Your task to perform on an android device: Search for Mexican restaurants on Maps Image 0: 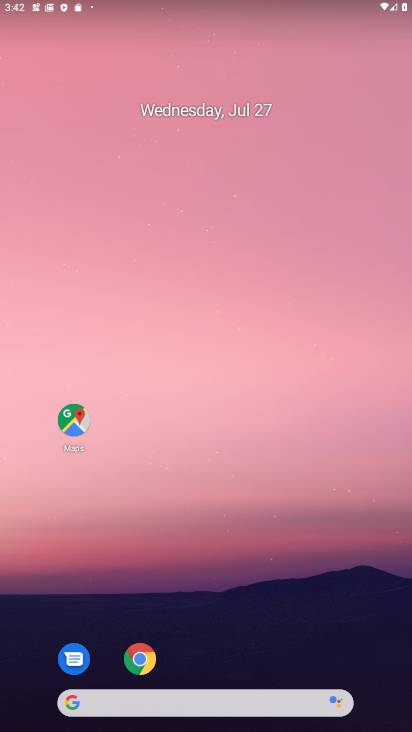
Step 0: drag from (211, 672) to (216, 226)
Your task to perform on an android device: Search for Mexican restaurants on Maps Image 1: 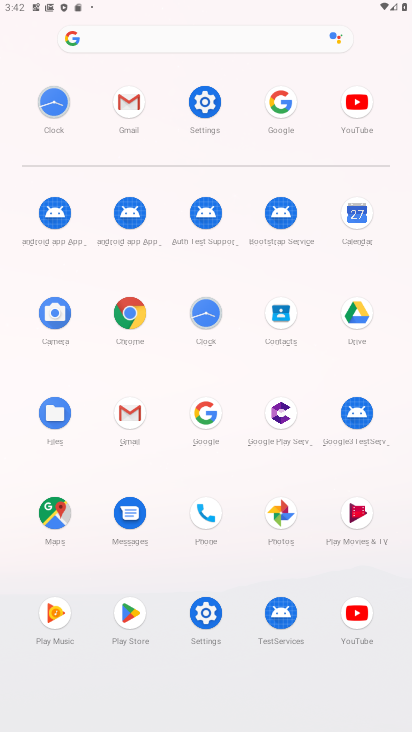
Step 1: click (57, 518)
Your task to perform on an android device: Search for Mexican restaurants on Maps Image 2: 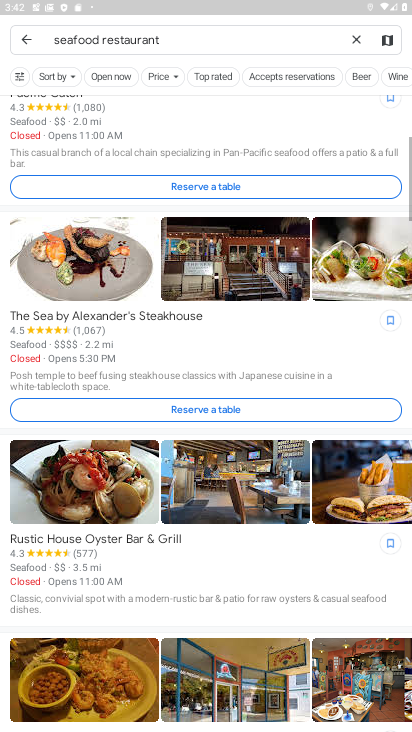
Step 2: click (357, 41)
Your task to perform on an android device: Search for Mexican restaurants on Maps Image 3: 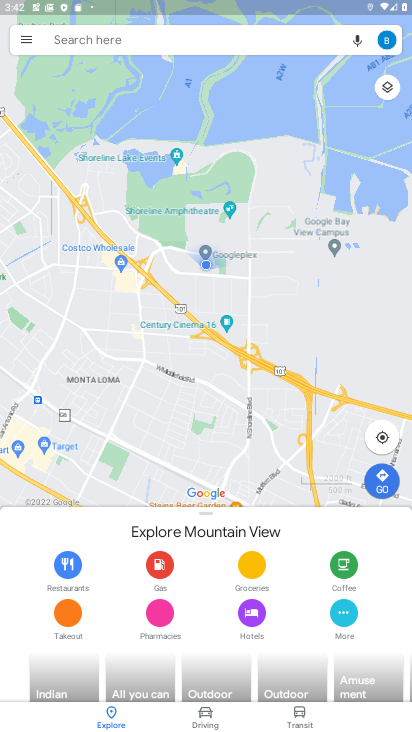
Step 3: click (141, 38)
Your task to perform on an android device: Search for Mexican restaurants on Maps Image 4: 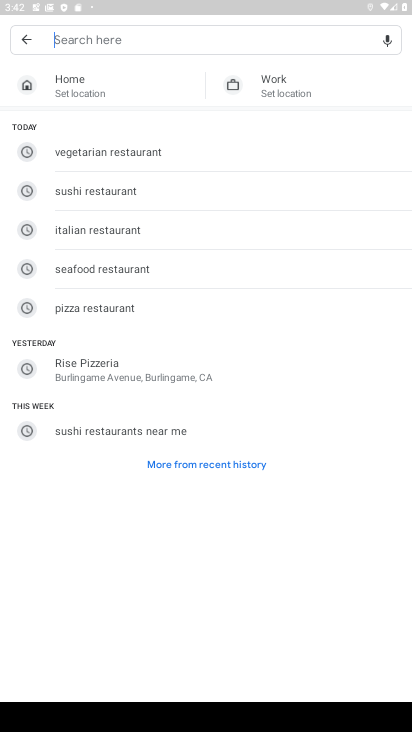
Step 4: type "Mexican restaurants"
Your task to perform on an android device: Search for Mexican restaurants on Maps Image 5: 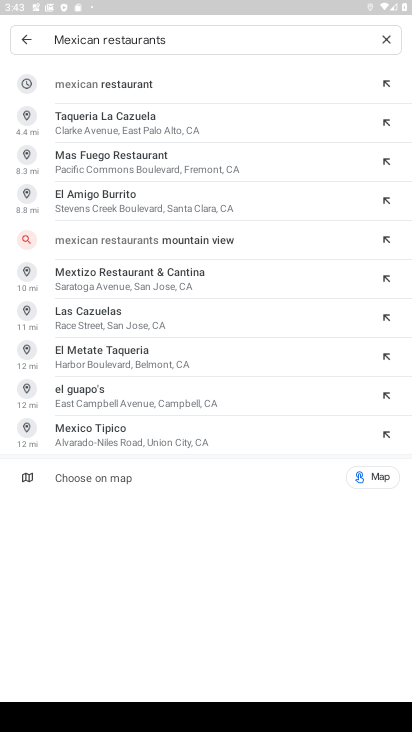
Step 5: click (125, 86)
Your task to perform on an android device: Search for Mexican restaurants on Maps Image 6: 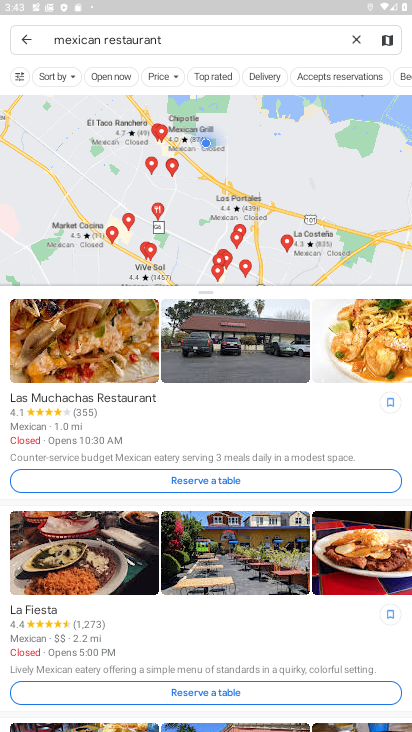
Step 6: task complete